Your task to perform on an android device: see creations saved in the google photos Image 0: 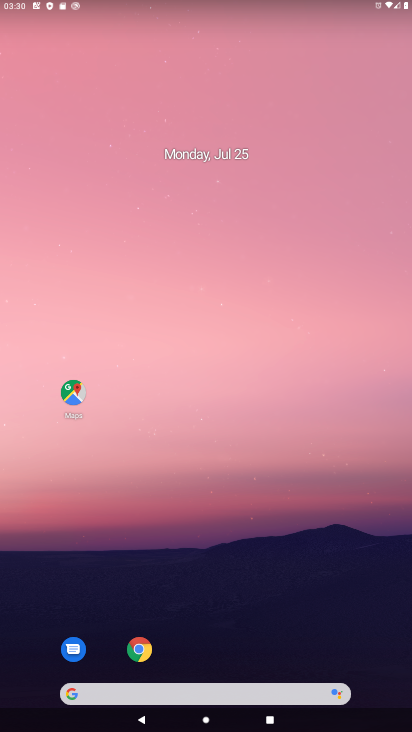
Step 0: drag from (381, 683) to (365, 219)
Your task to perform on an android device: see creations saved in the google photos Image 1: 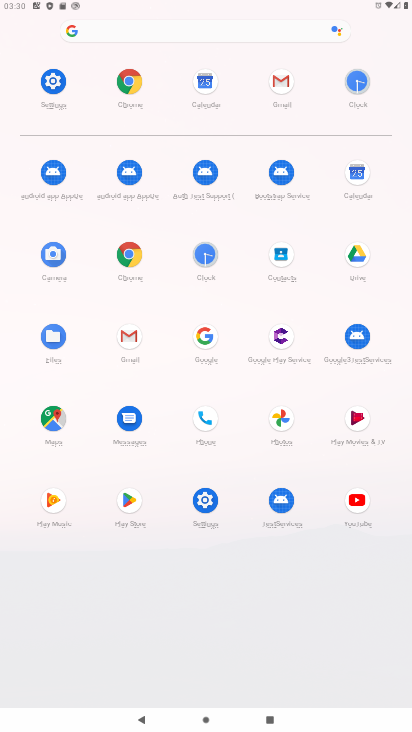
Step 1: click (280, 418)
Your task to perform on an android device: see creations saved in the google photos Image 2: 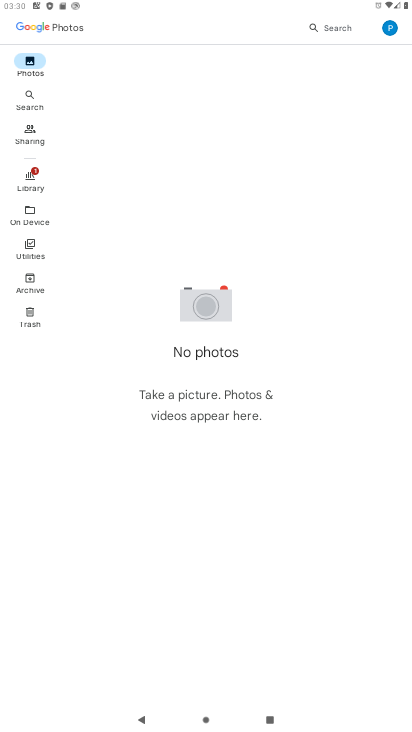
Step 2: task complete